Your task to perform on an android device: read, delete, or share a saved page in the chrome app Image 0: 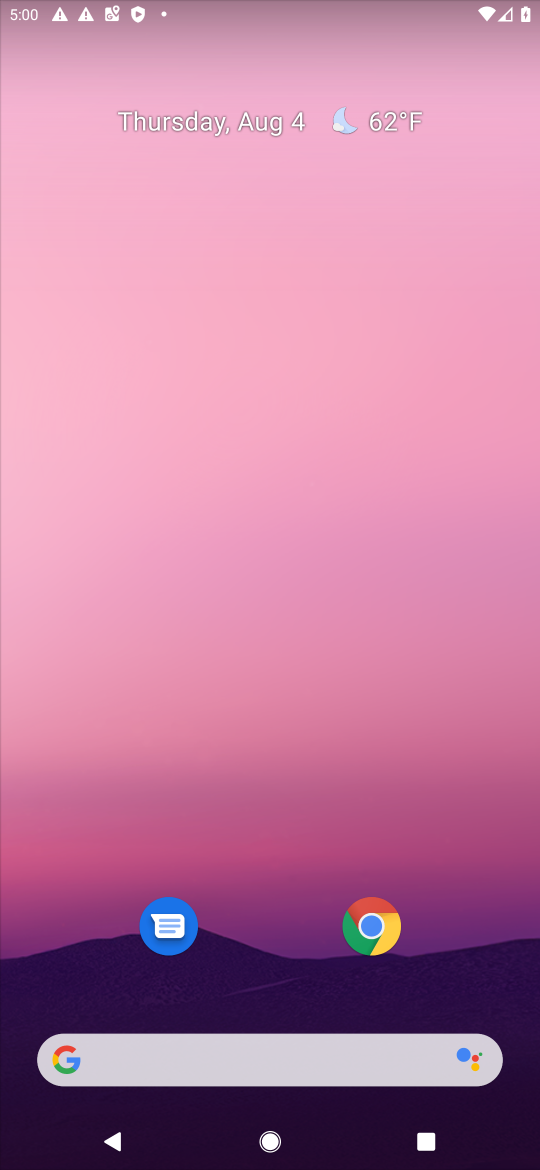
Step 0: press home button
Your task to perform on an android device: read, delete, or share a saved page in the chrome app Image 1: 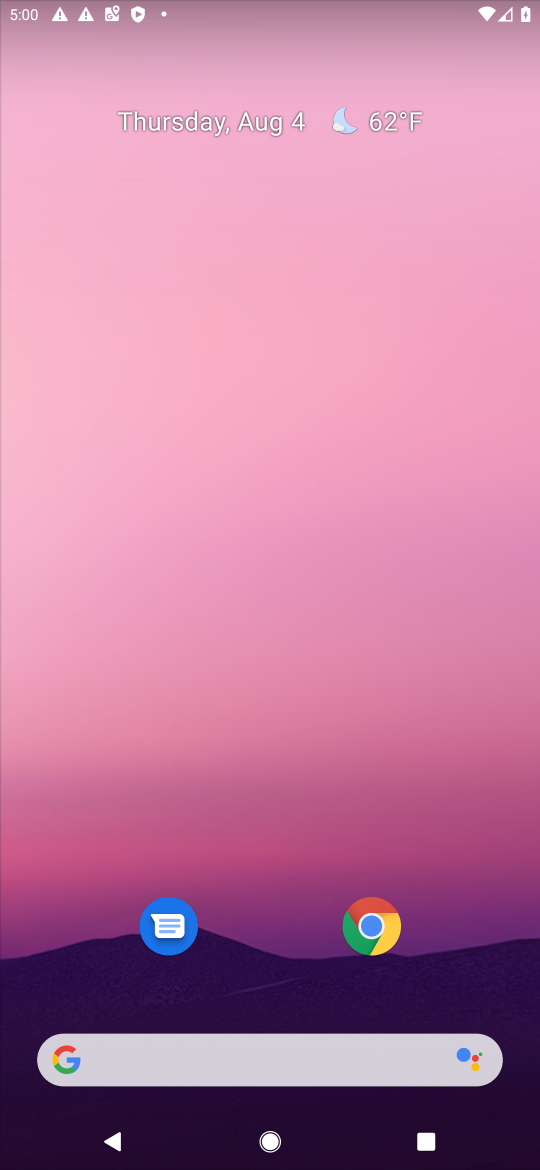
Step 1: drag from (293, 844) to (343, 163)
Your task to perform on an android device: read, delete, or share a saved page in the chrome app Image 2: 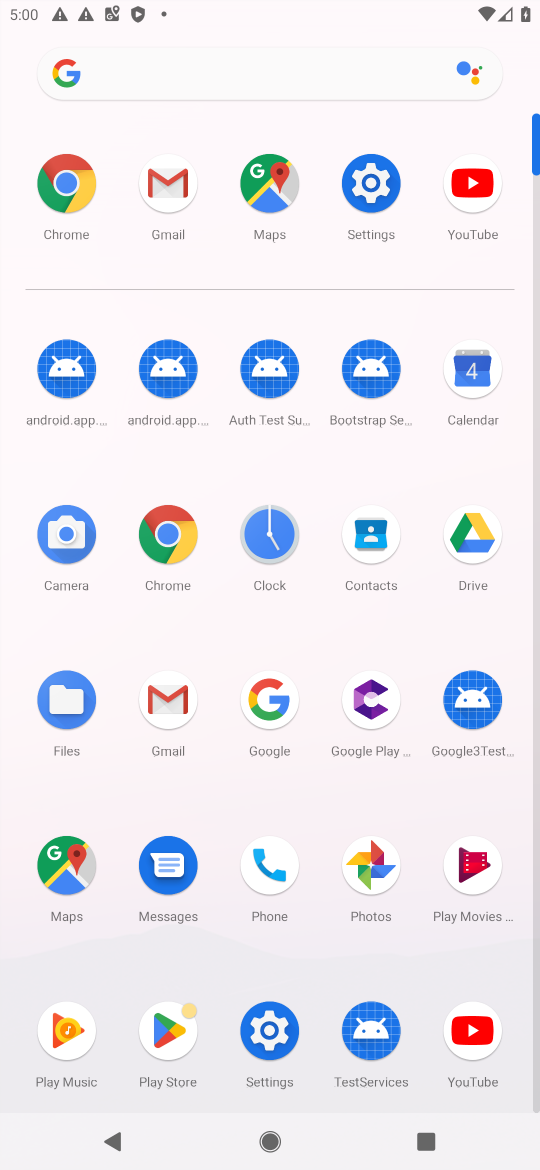
Step 2: click (61, 200)
Your task to perform on an android device: read, delete, or share a saved page in the chrome app Image 3: 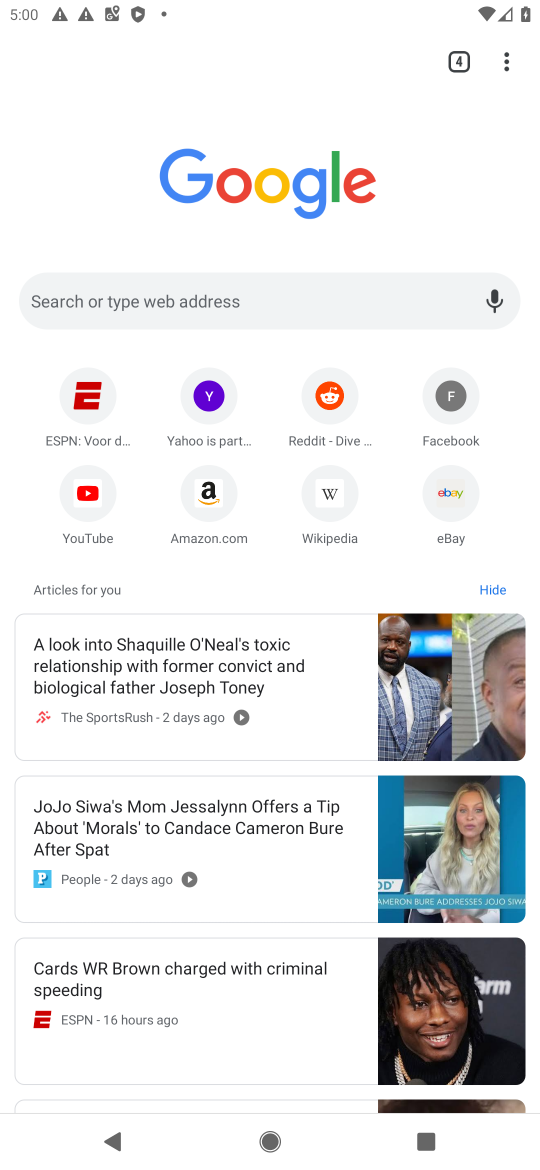
Step 3: drag from (511, 67) to (265, 483)
Your task to perform on an android device: read, delete, or share a saved page in the chrome app Image 4: 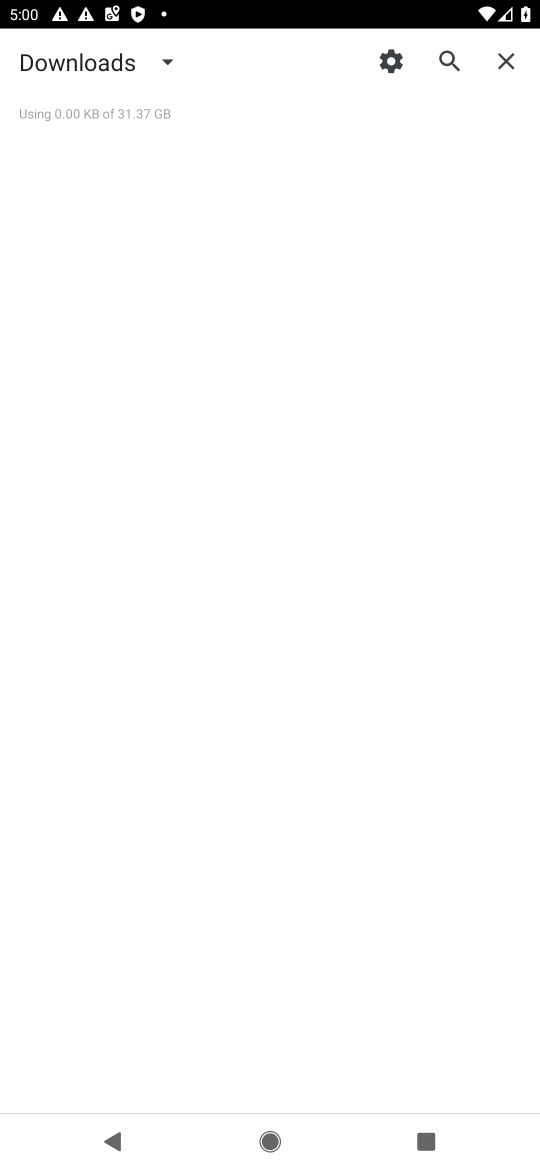
Step 4: click (165, 62)
Your task to perform on an android device: read, delete, or share a saved page in the chrome app Image 5: 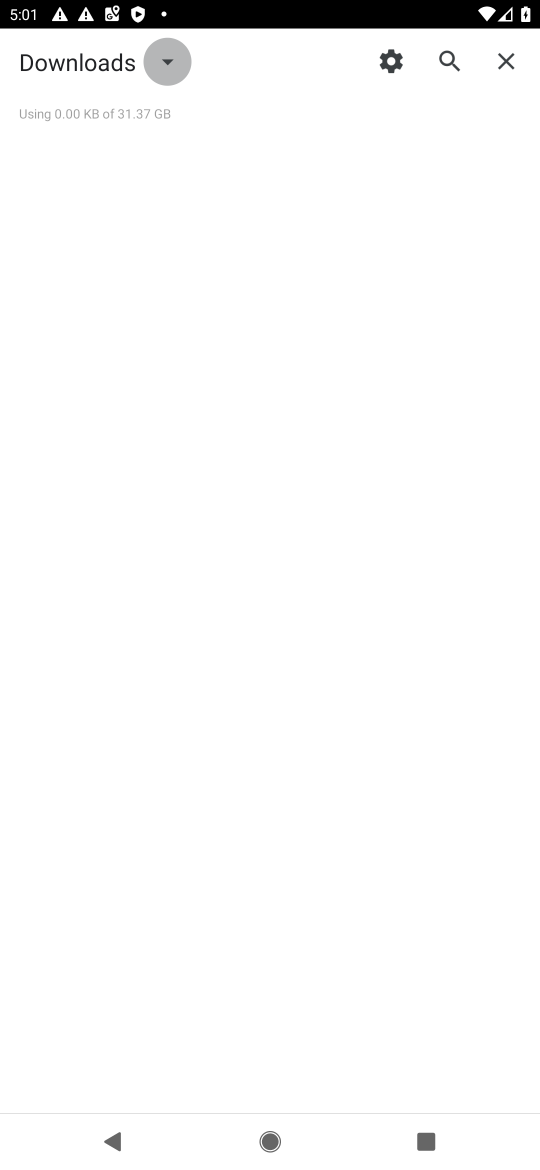
Step 5: click (165, 62)
Your task to perform on an android device: read, delete, or share a saved page in the chrome app Image 6: 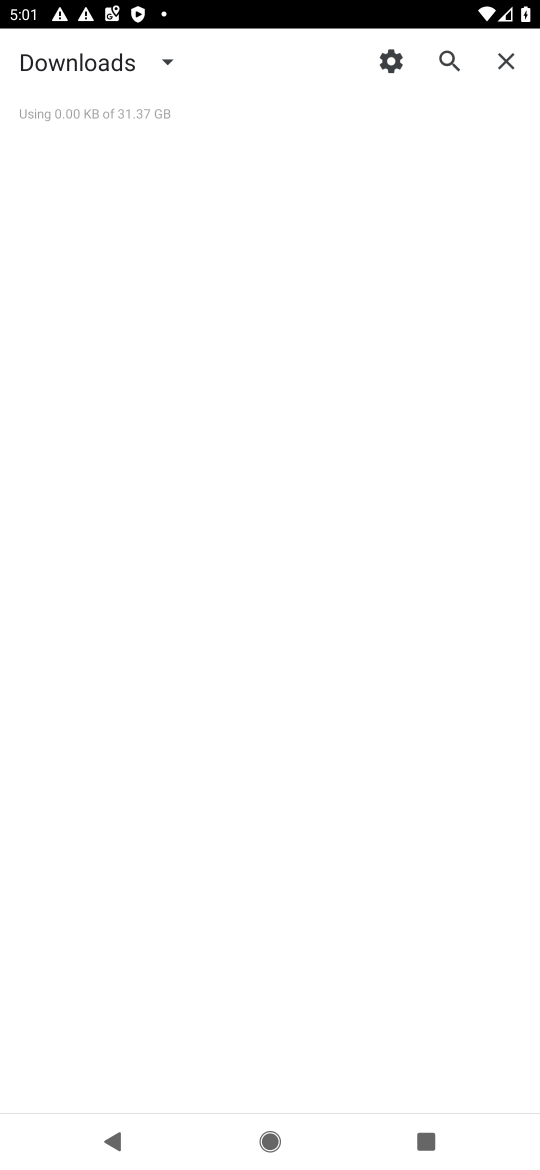
Step 6: click (165, 62)
Your task to perform on an android device: read, delete, or share a saved page in the chrome app Image 7: 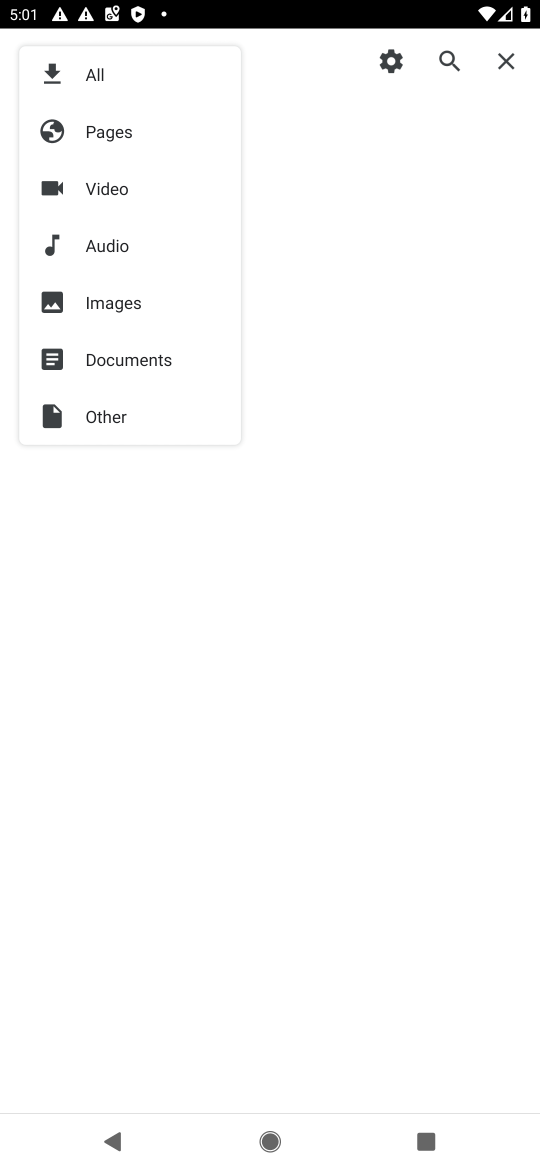
Step 7: click (91, 145)
Your task to perform on an android device: read, delete, or share a saved page in the chrome app Image 8: 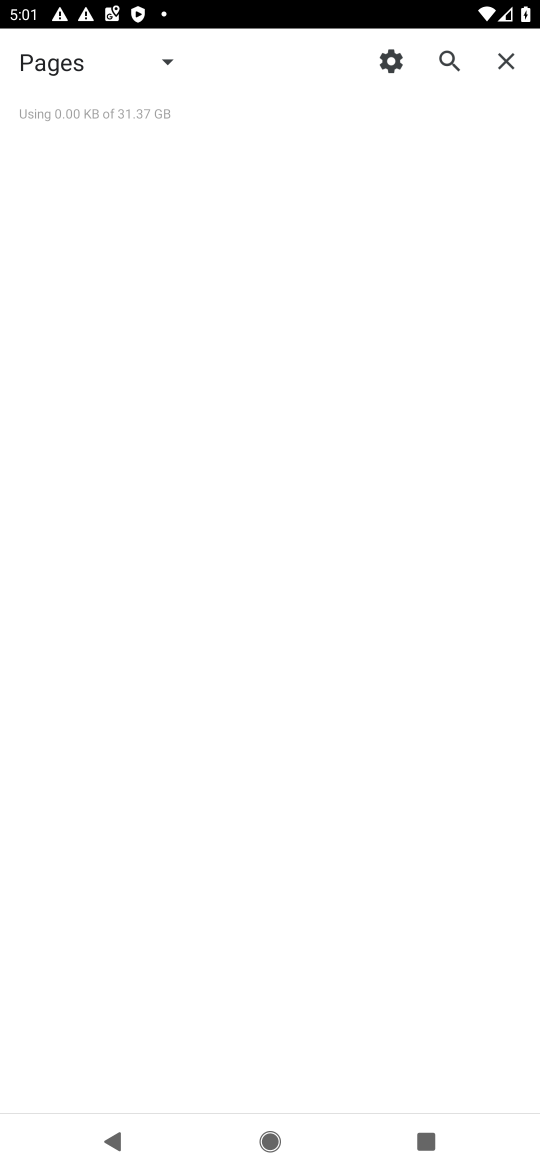
Step 8: task complete